Your task to perform on an android device: Go to sound settings Image 0: 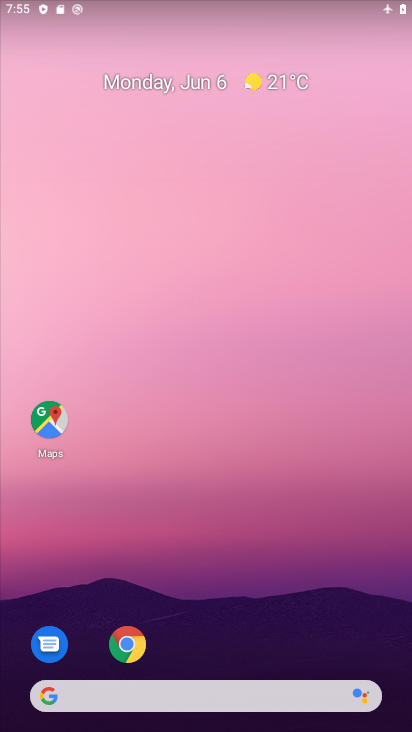
Step 0: drag from (197, 670) to (170, 70)
Your task to perform on an android device: Go to sound settings Image 1: 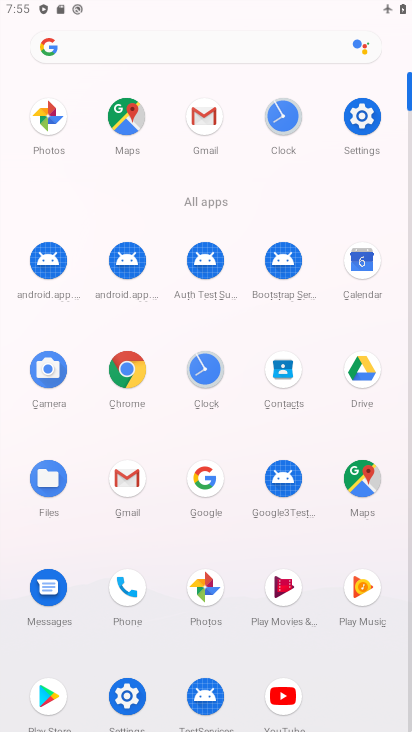
Step 1: click (353, 126)
Your task to perform on an android device: Go to sound settings Image 2: 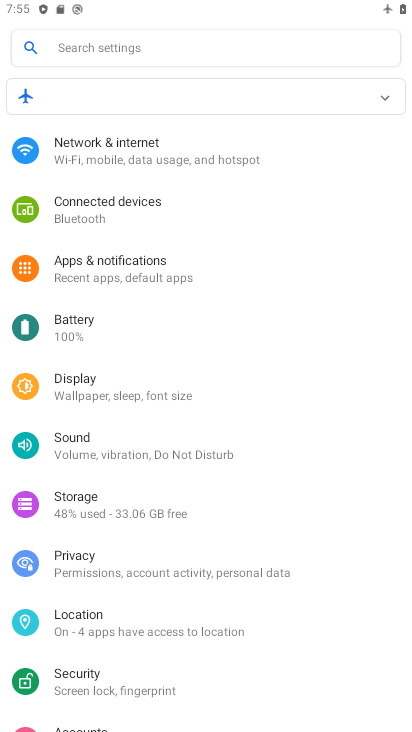
Step 2: click (84, 454)
Your task to perform on an android device: Go to sound settings Image 3: 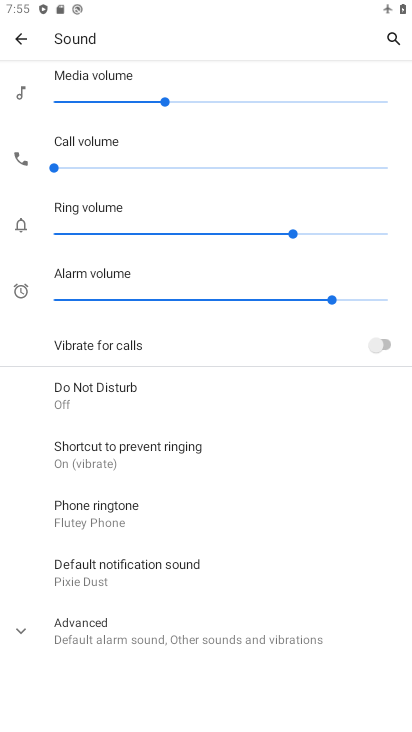
Step 3: task complete